Your task to perform on an android device: Go to Wikipedia Image 0: 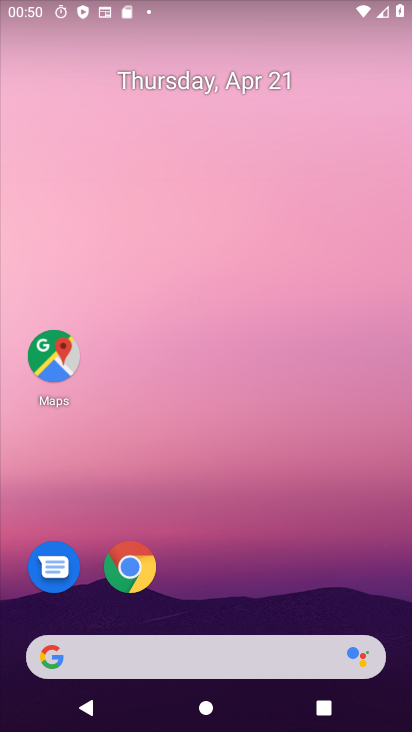
Step 0: drag from (225, 459) to (223, 221)
Your task to perform on an android device: Go to Wikipedia Image 1: 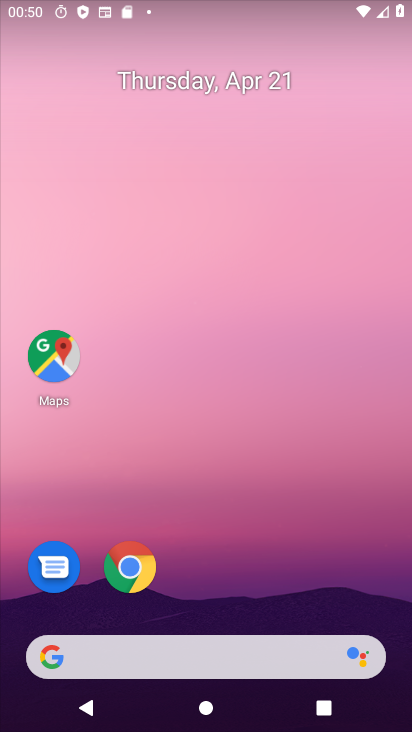
Step 1: drag from (210, 572) to (309, 214)
Your task to perform on an android device: Go to Wikipedia Image 2: 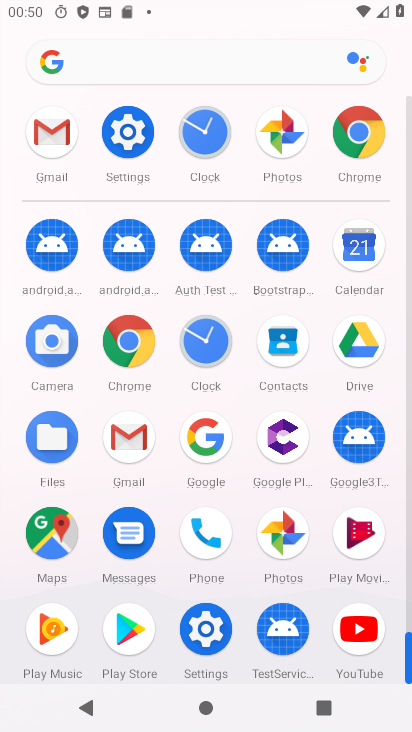
Step 2: click (369, 129)
Your task to perform on an android device: Go to Wikipedia Image 3: 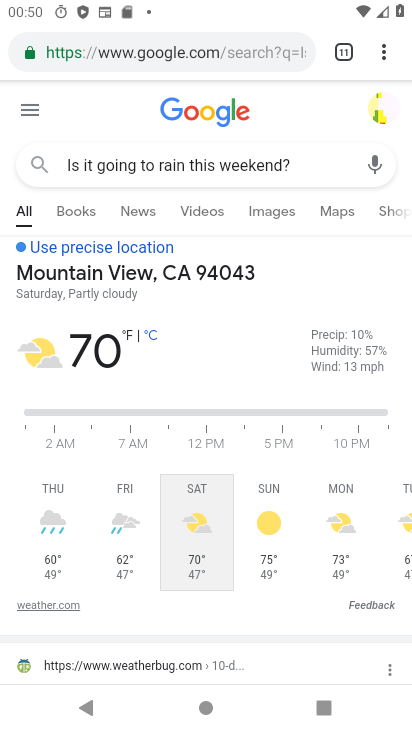
Step 3: click (373, 47)
Your task to perform on an android device: Go to Wikipedia Image 4: 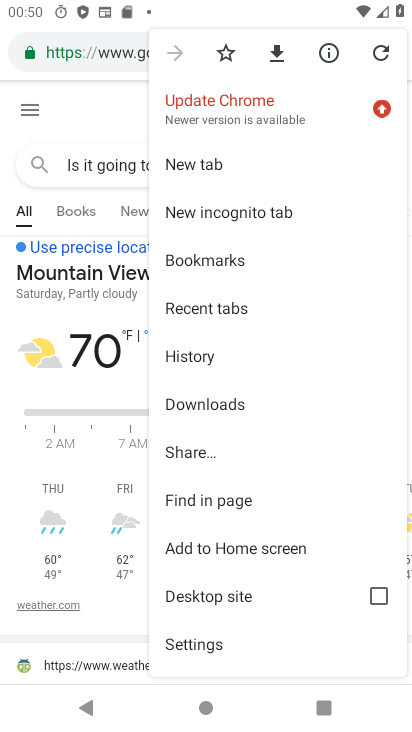
Step 4: click (223, 161)
Your task to perform on an android device: Go to Wikipedia Image 5: 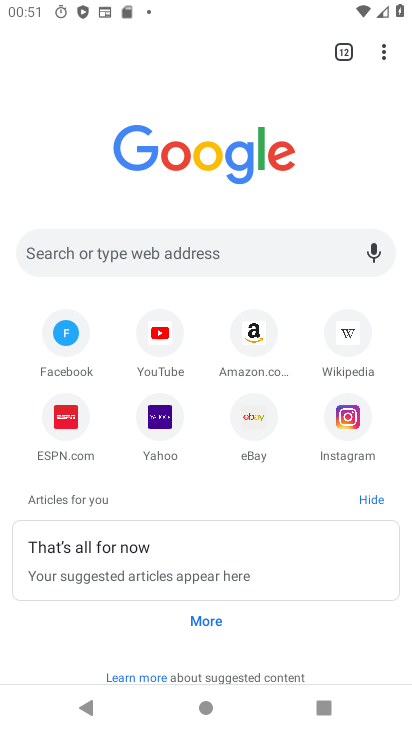
Step 5: click (346, 326)
Your task to perform on an android device: Go to Wikipedia Image 6: 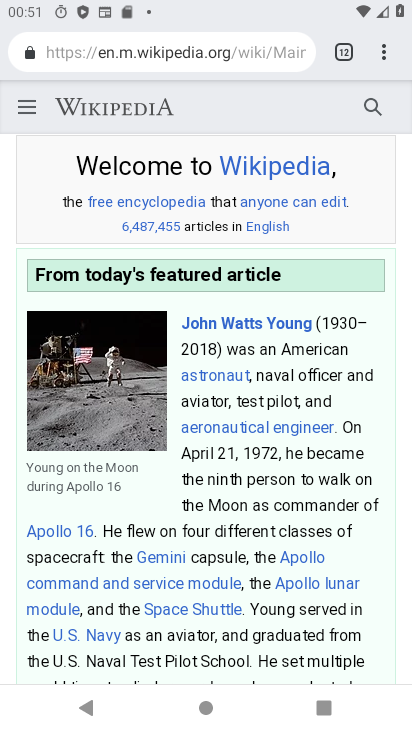
Step 6: task complete